Your task to perform on an android device: Open internet settings Image 0: 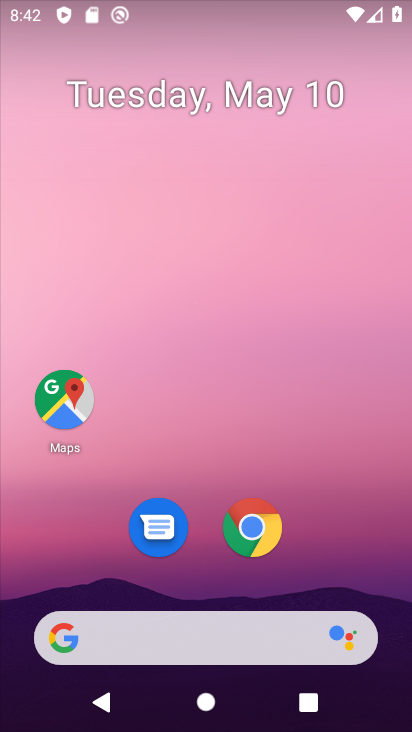
Step 0: drag from (163, 601) to (291, 142)
Your task to perform on an android device: Open internet settings Image 1: 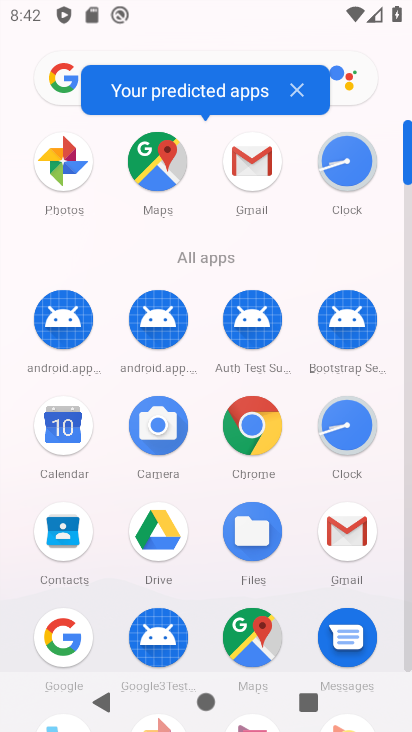
Step 1: drag from (172, 643) to (262, 268)
Your task to perform on an android device: Open internet settings Image 2: 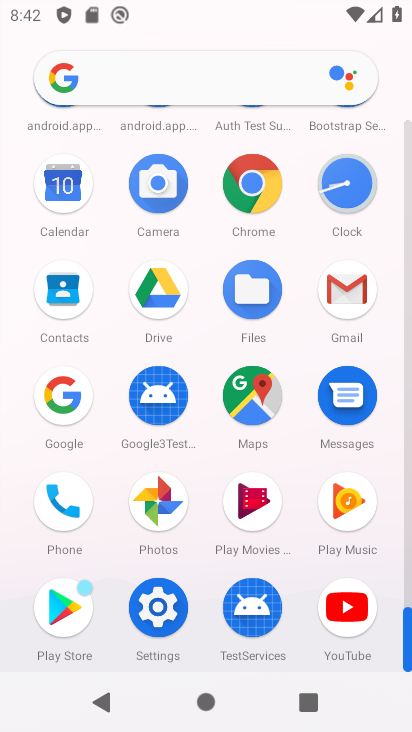
Step 2: click (164, 626)
Your task to perform on an android device: Open internet settings Image 3: 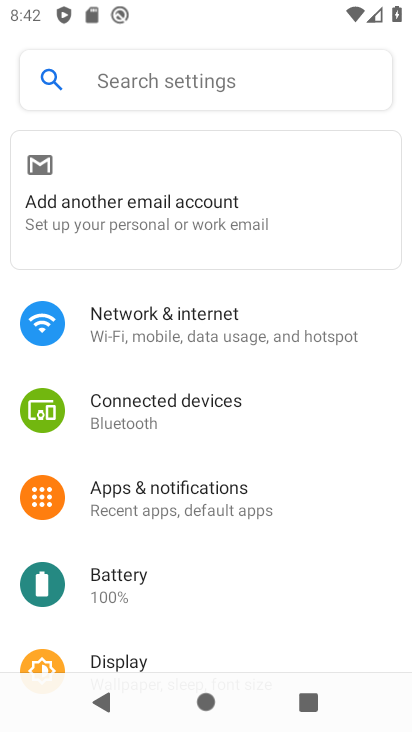
Step 3: drag from (267, 517) to (344, 192)
Your task to perform on an android device: Open internet settings Image 4: 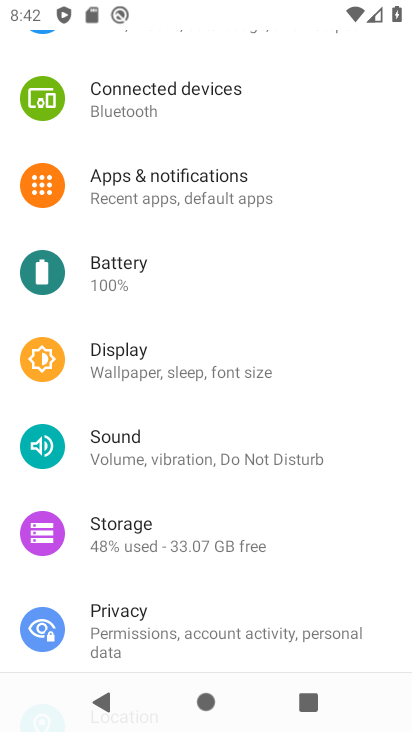
Step 4: drag from (337, 193) to (266, 429)
Your task to perform on an android device: Open internet settings Image 5: 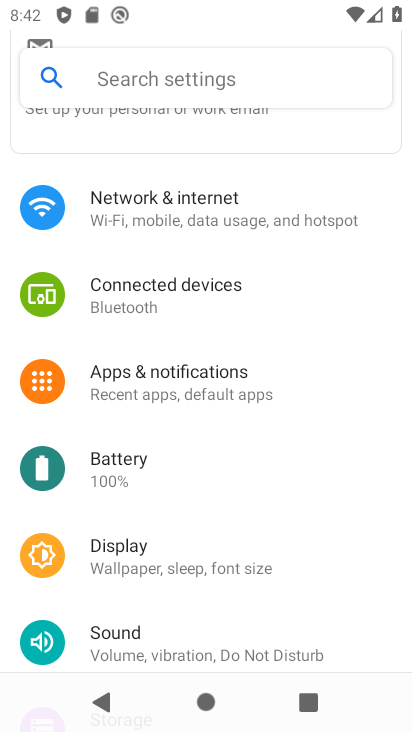
Step 5: click (192, 195)
Your task to perform on an android device: Open internet settings Image 6: 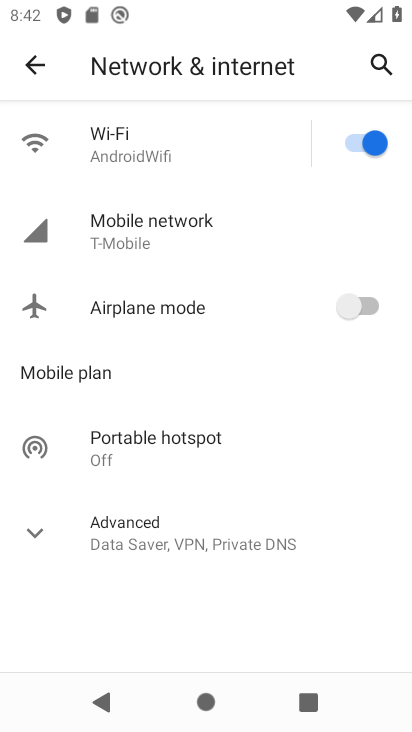
Step 6: click (207, 231)
Your task to perform on an android device: Open internet settings Image 7: 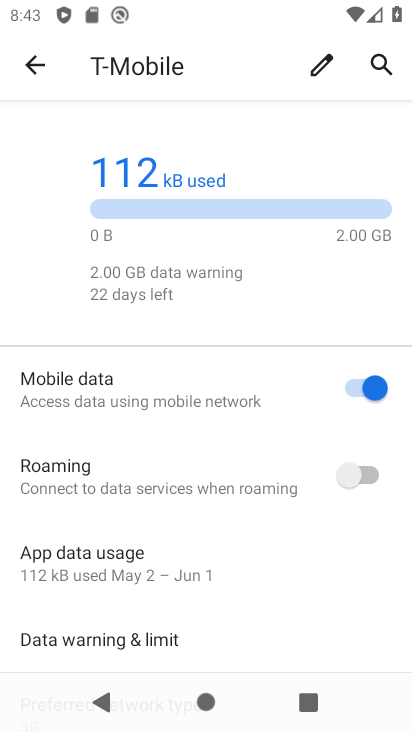
Step 7: task complete